Your task to perform on an android device: toggle notification dots Image 0: 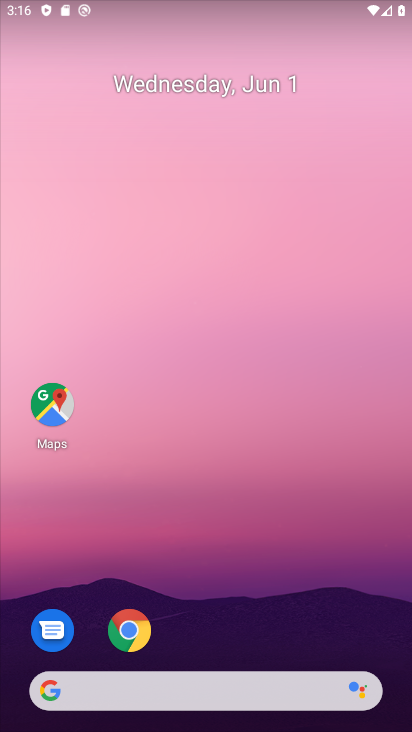
Step 0: press home button
Your task to perform on an android device: toggle notification dots Image 1: 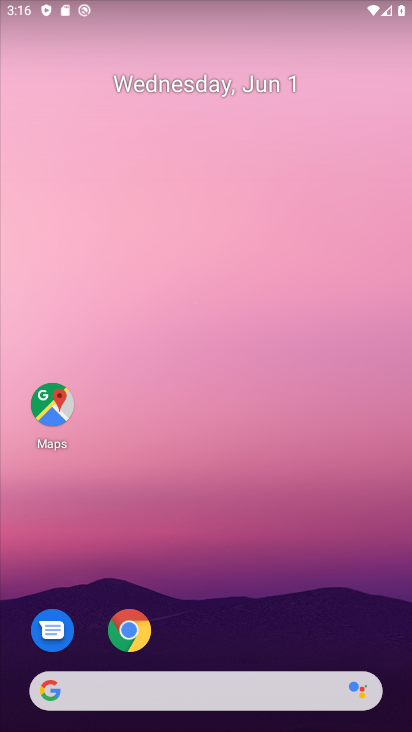
Step 1: drag from (292, 634) to (245, 202)
Your task to perform on an android device: toggle notification dots Image 2: 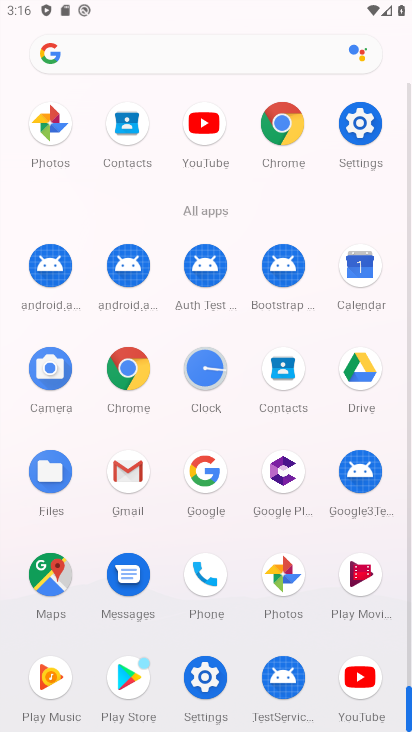
Step 2: click (355, 132)
Your task to perform on an android device: toggle notification dots Image 3: 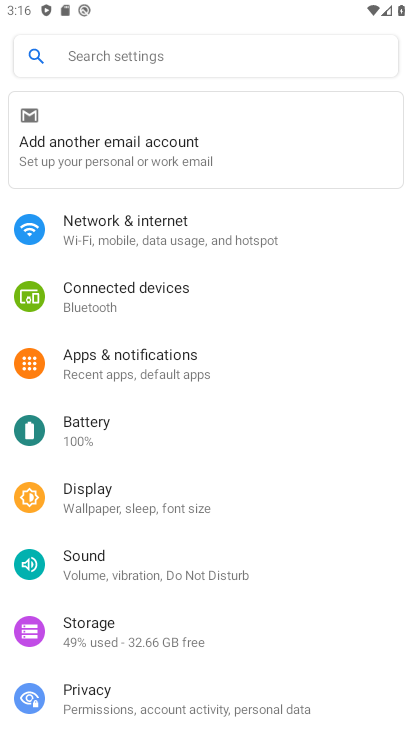
Step 3: click (133, 364)
Your task to perform on an android device: toggle notification dots Image 4: 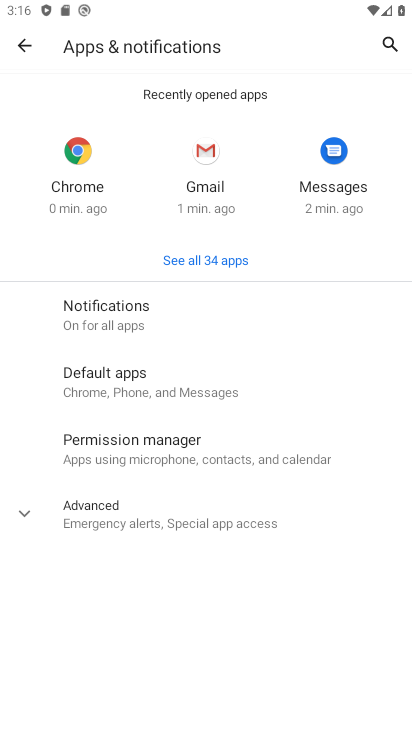
Step 4: click (94, 510)
Your task to perform on an android device: toggle notification dots Image 5: 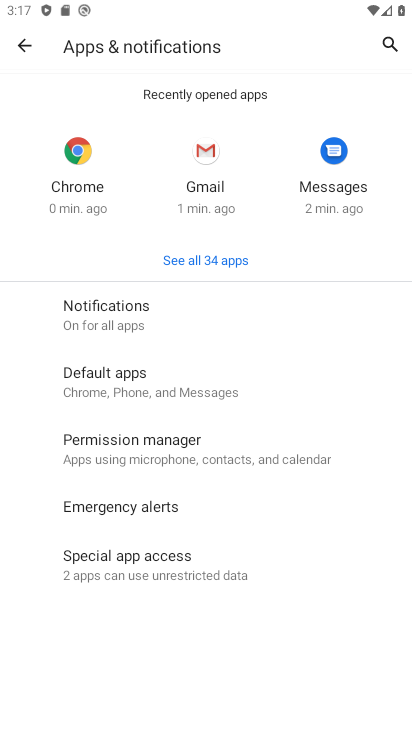
Step 5: drag from (308, 491) to (306, 297)
Your task to perform on an android device: toggle notification dots Image 6: 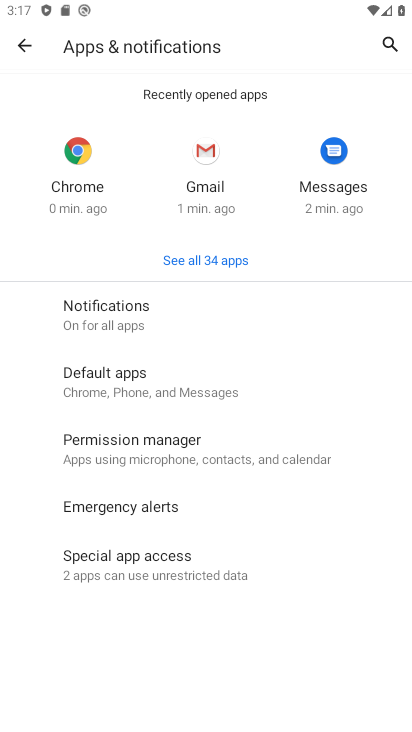
Step 6: click (124, 297)
Your task to perform on an android device: toggle notification dots Image 7: 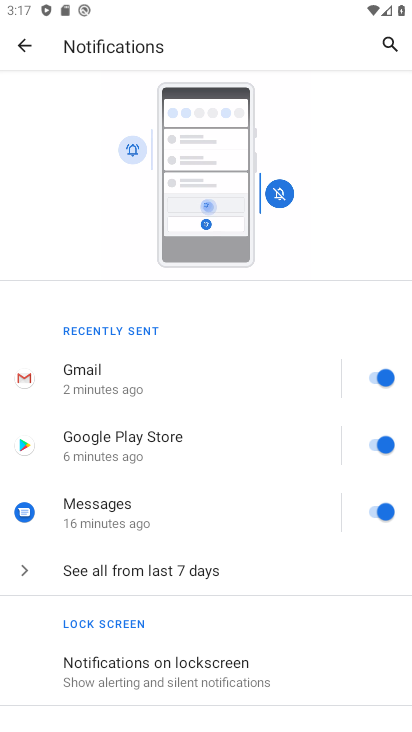
Step 7: drag from (325, 618) to (293, 286)
Your task to perform on an android device: toggle notification dots Image 8: 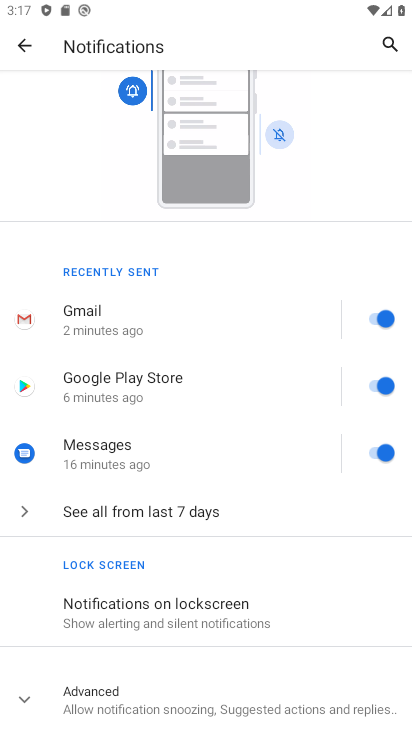
Step 8: click (74, 698)
Your task to perform on an android device: toggle notification dots Image 9: 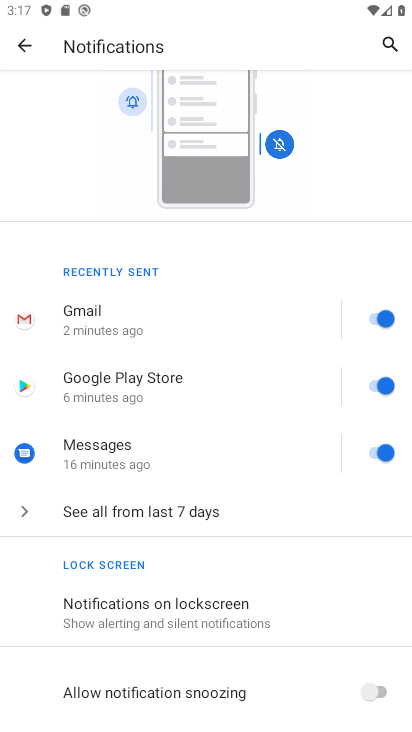
Step 9: drag from (191, 665) to (206, 364)
Your task to perform on an android device: toggle notification dots Image 10: 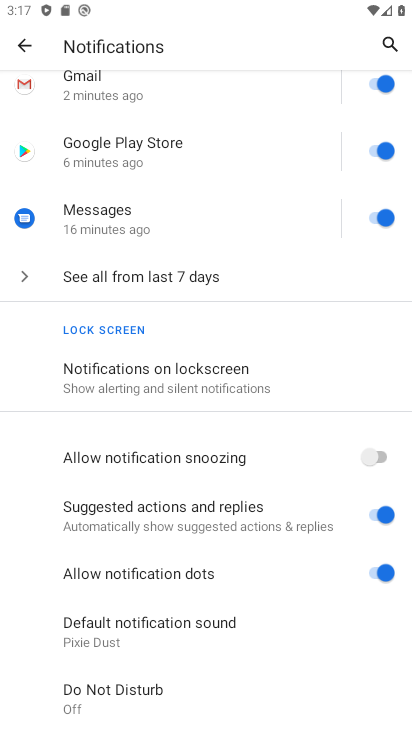
Step 10: click (381, 573)
Your task to perform on an android device: toggle notification dots Image 11: 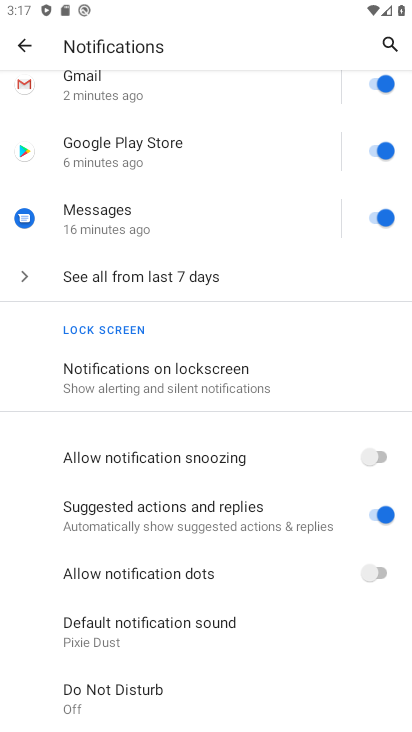
Step 11: task complete